Your task to perform on an android device: Do I have any events today? Image 0: 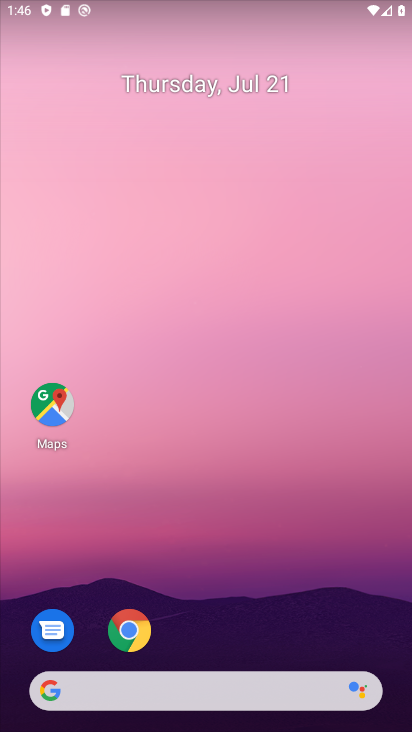
Step 0: click (195, 59)
Your task to perform on an android device: Do I have any events today? Image 1: 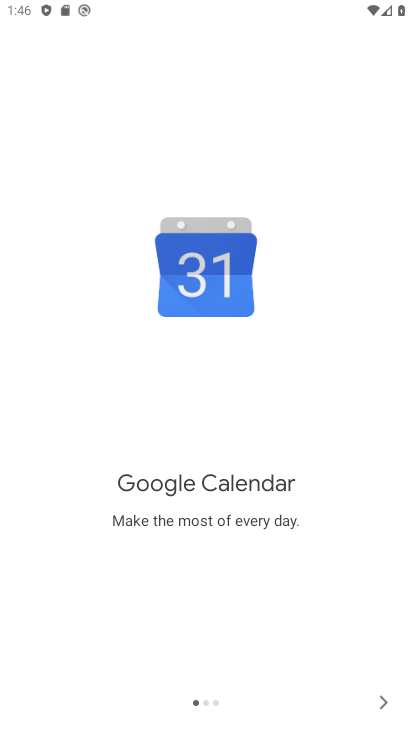
Step 1: click (381, 698)
Your task to perform on an android device: Do I have any events today? Image 2: 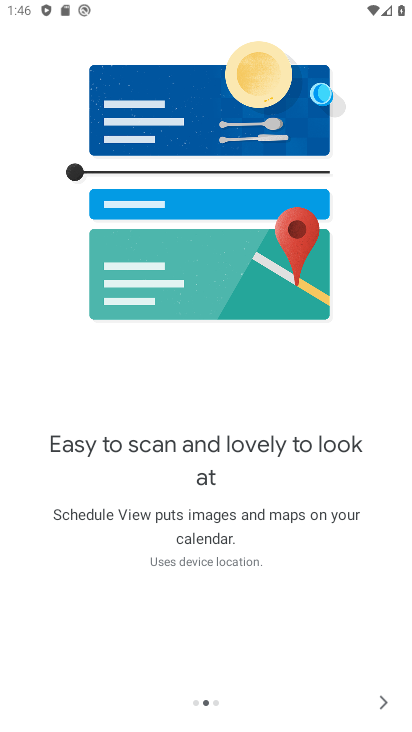
Step 2: click (381, 698)
Your task to perform on an android device: Do I have any events today? Image 3: 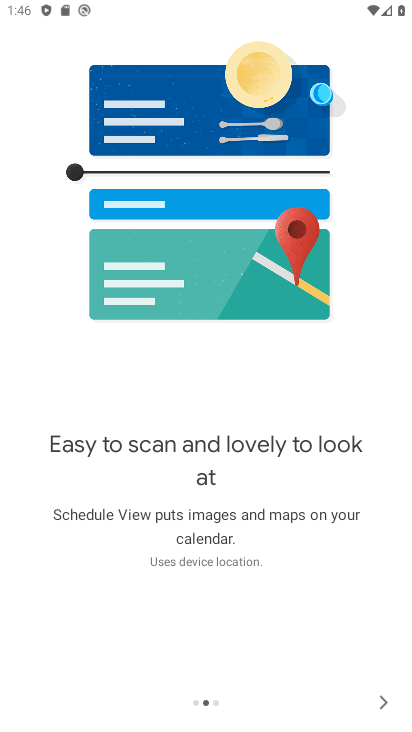
Step 3: click (381, 698)
Your task to perform on an android device: Do I have any events today? Image 4: 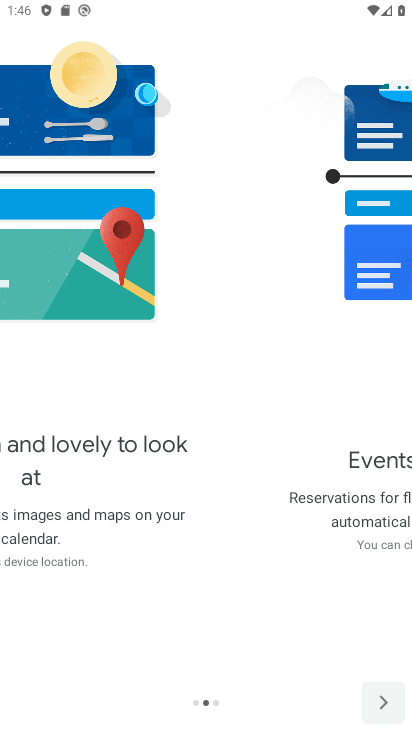
Step 4: click (381, 698)
Your task to perform on an android device: Do I have any events today? Image 5: 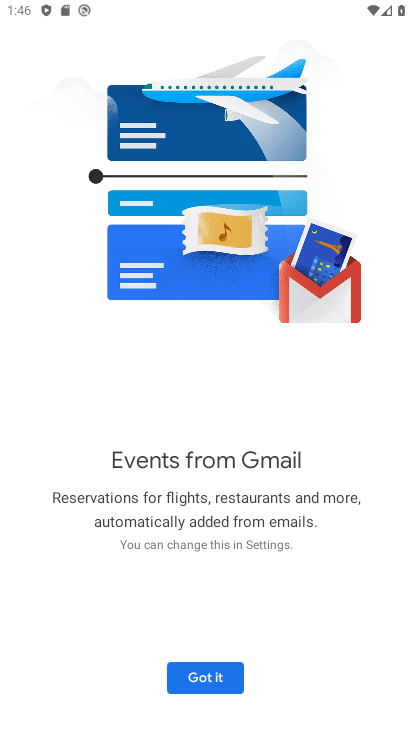
Step 5: click (381, 698)
Your task to perform on an android device: Do I have any events today? Image 6: 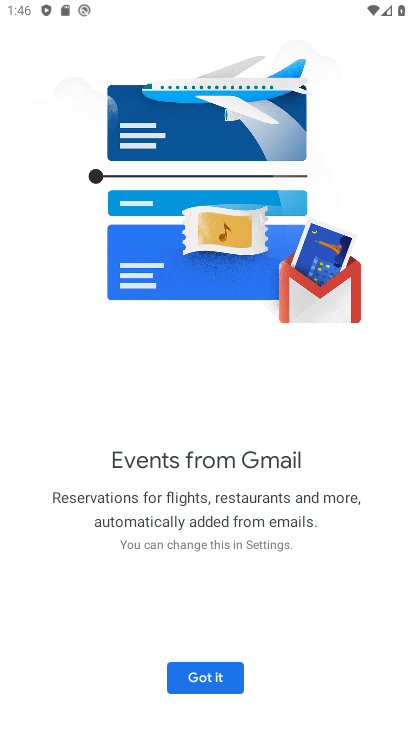
Step 6: click (381, 698)
Your task to perform on an android device: Do I have any events today? Image 7: 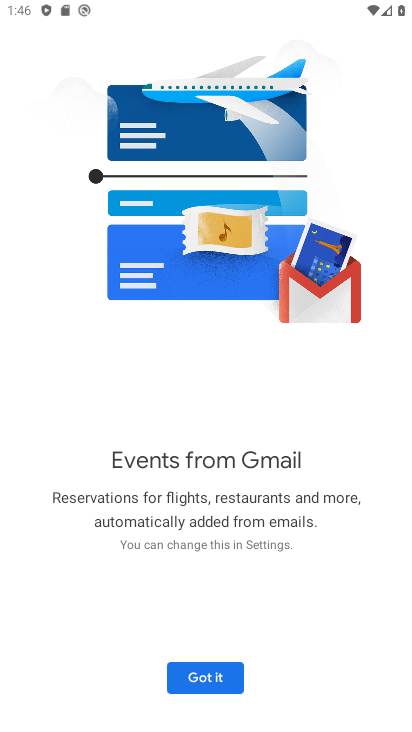
Step 7: click (381, 698)
Your task to perform on an android device: Do I have any events today? Image 8: 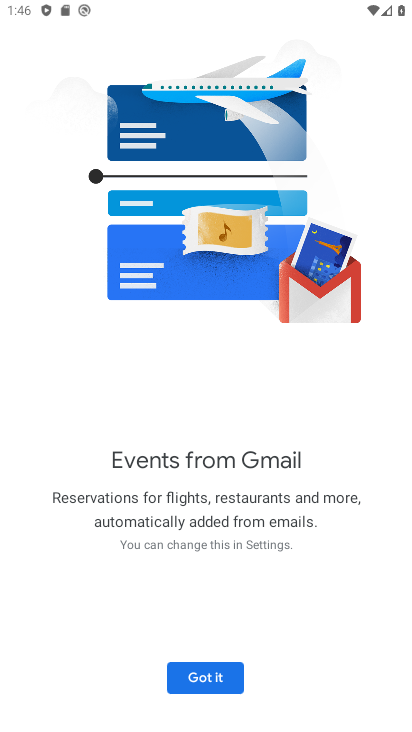
Step 8: click (204, 666)
Your task to perform on an android device: Do I have any events today? Image 9: 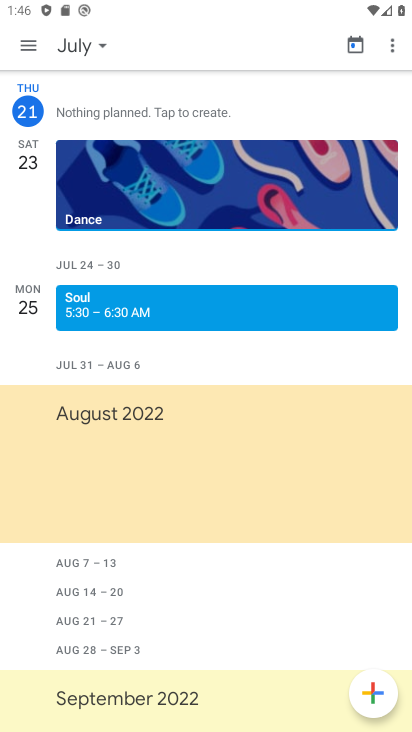
Step 9: task complete